Your task to perform on an android device: turn vacation reply on in the gmail app Image 0: 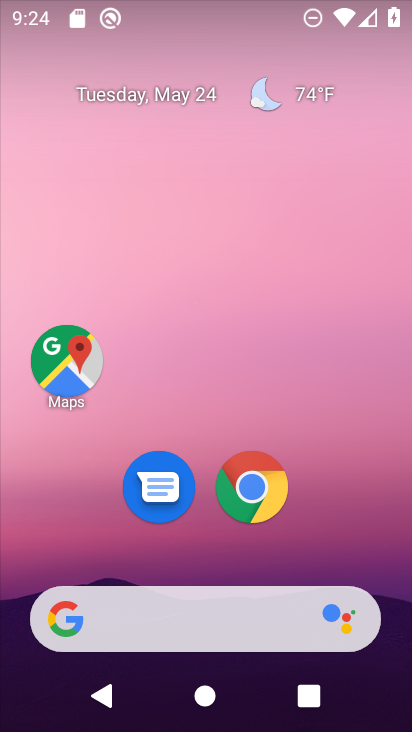
Step 0: drag from (365, 567) to (353, 3)
Your task to perform on an android device: turn vacation reply on in the gmail app Image 1: 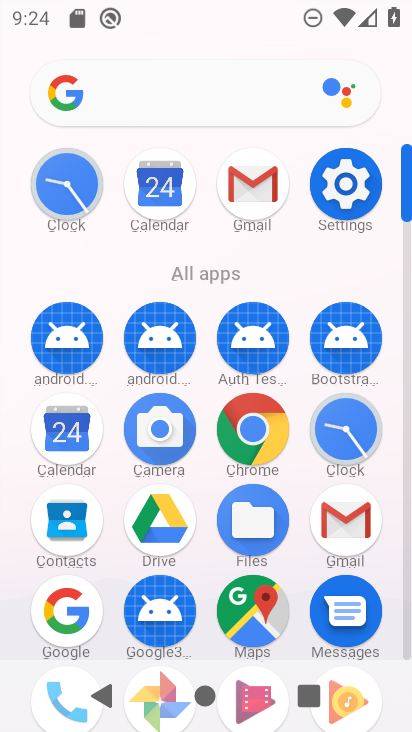
Step 1: click (252, 194)
Your task to perform on an android device: turn vacation reply on in the gmail app Image 2: 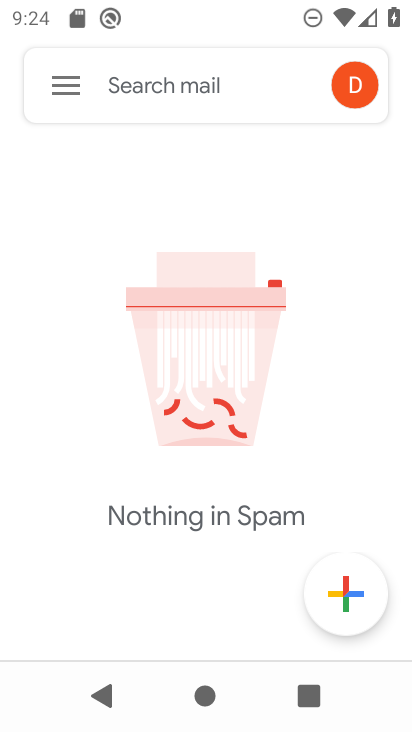
Step 2: click (48, 87)
Your task to perform on an android device: turn vacation reply on in the gmail app Image 3: 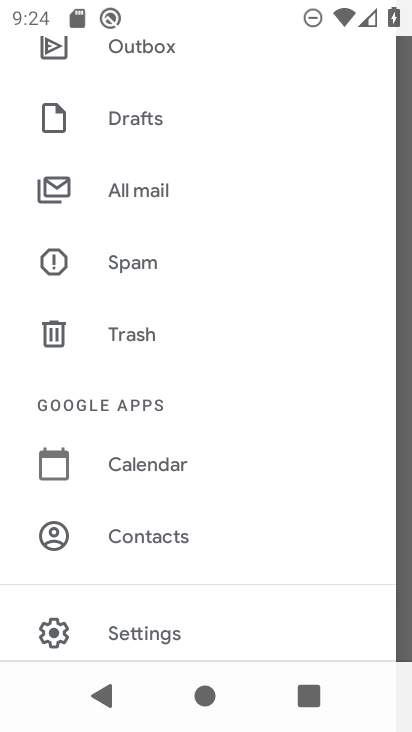
Step 3: click (176, 629)
Your task to perform on an android device: turn vacation reply on in the gmail app Image 4: 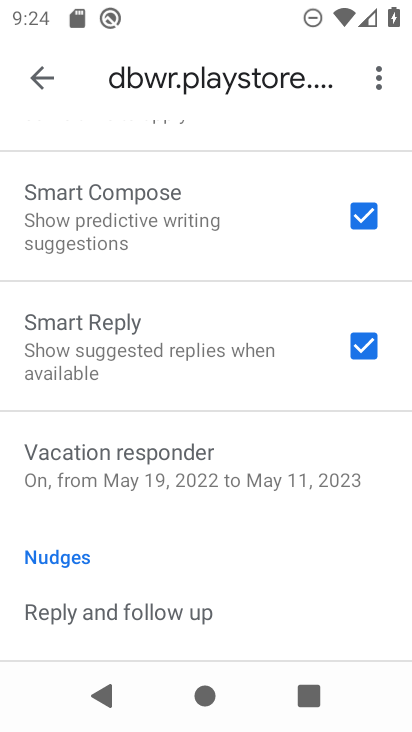
Step 4: click (156, 477)
Your task to perform on an android device: turn vacation reply on in the gmail app Image 5: 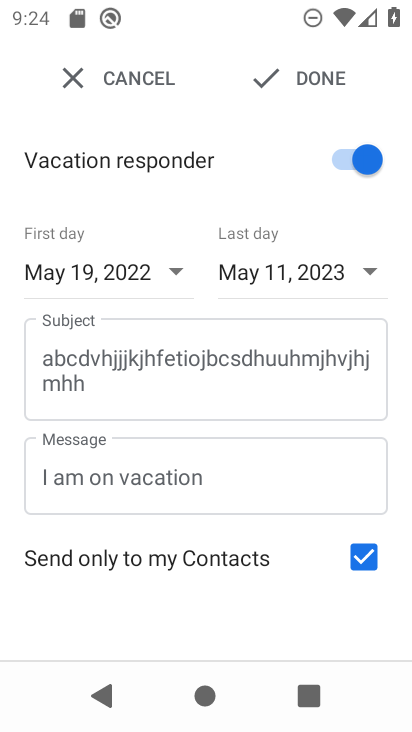
Step 5: click (299, 80)
Your task to perform on an android device: turn vacation reply on in the gmail app Image 6: 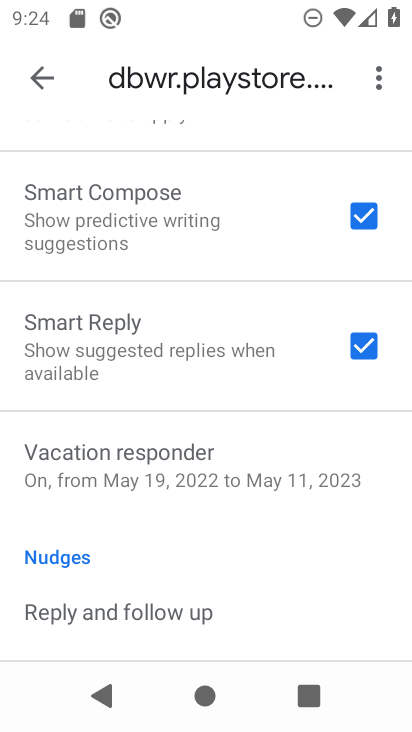
Step 6: task complete